Your task to perform on an android device: Go to settings Image 0: 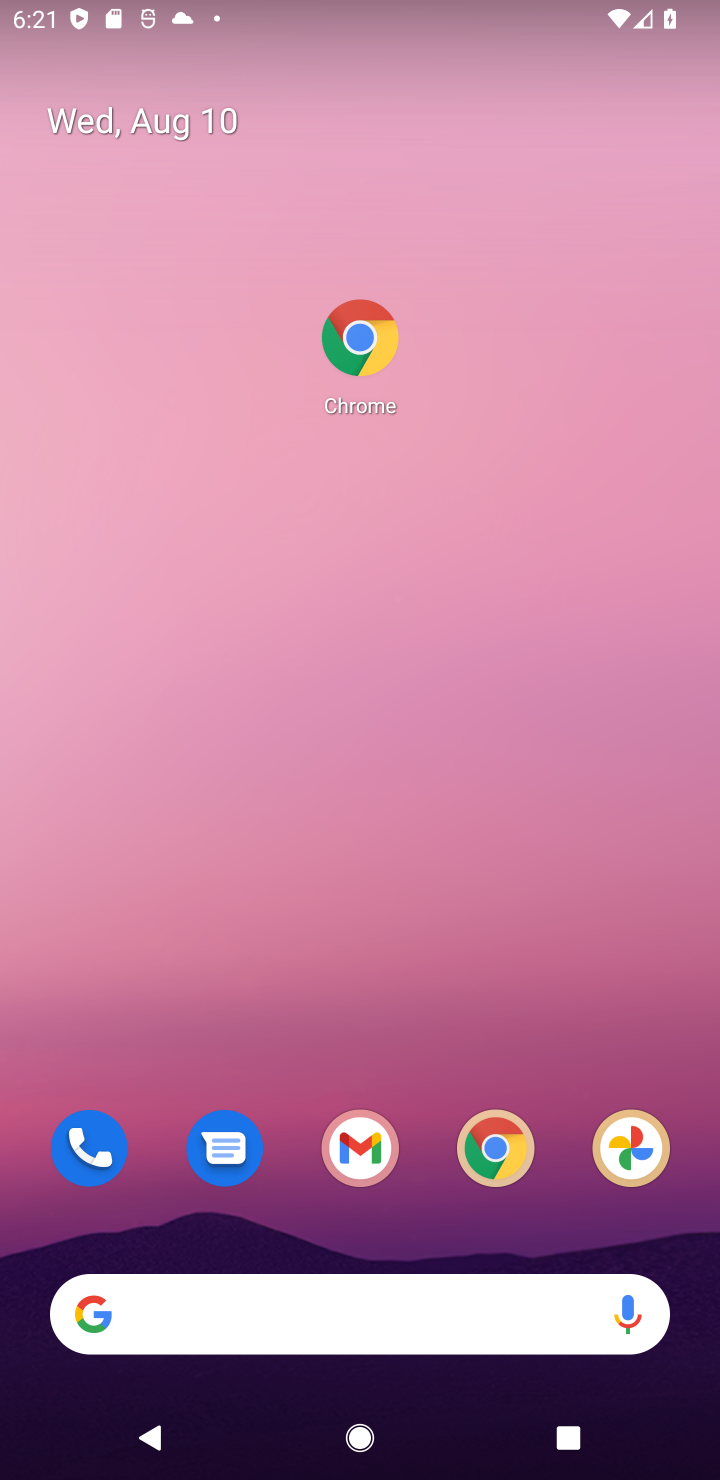
Step 0: click (335, 1210)
Your task to perform on an android device: Go to settings Image 1: 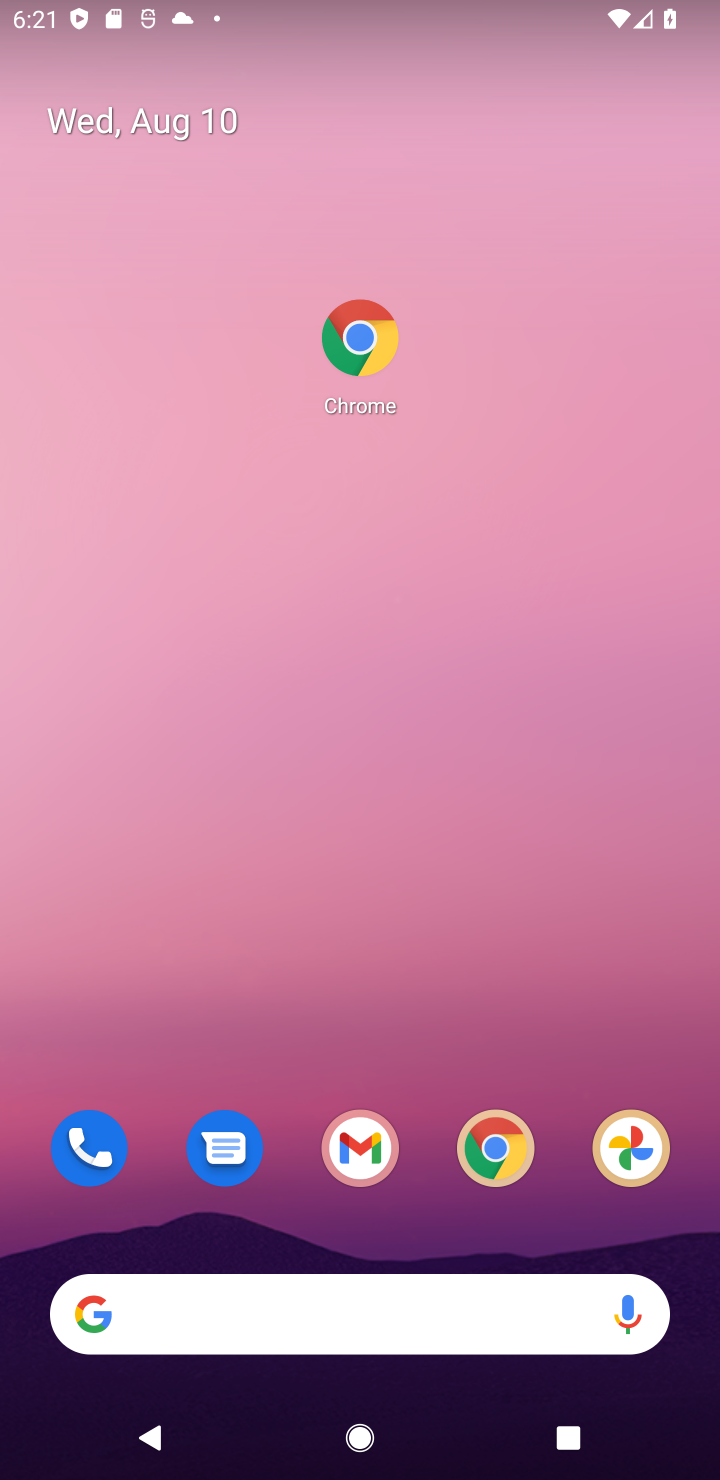
Step 1: drag from (335, 1210) to (348, 173)
Your task to perform on an android device: Go to settings Image 2: 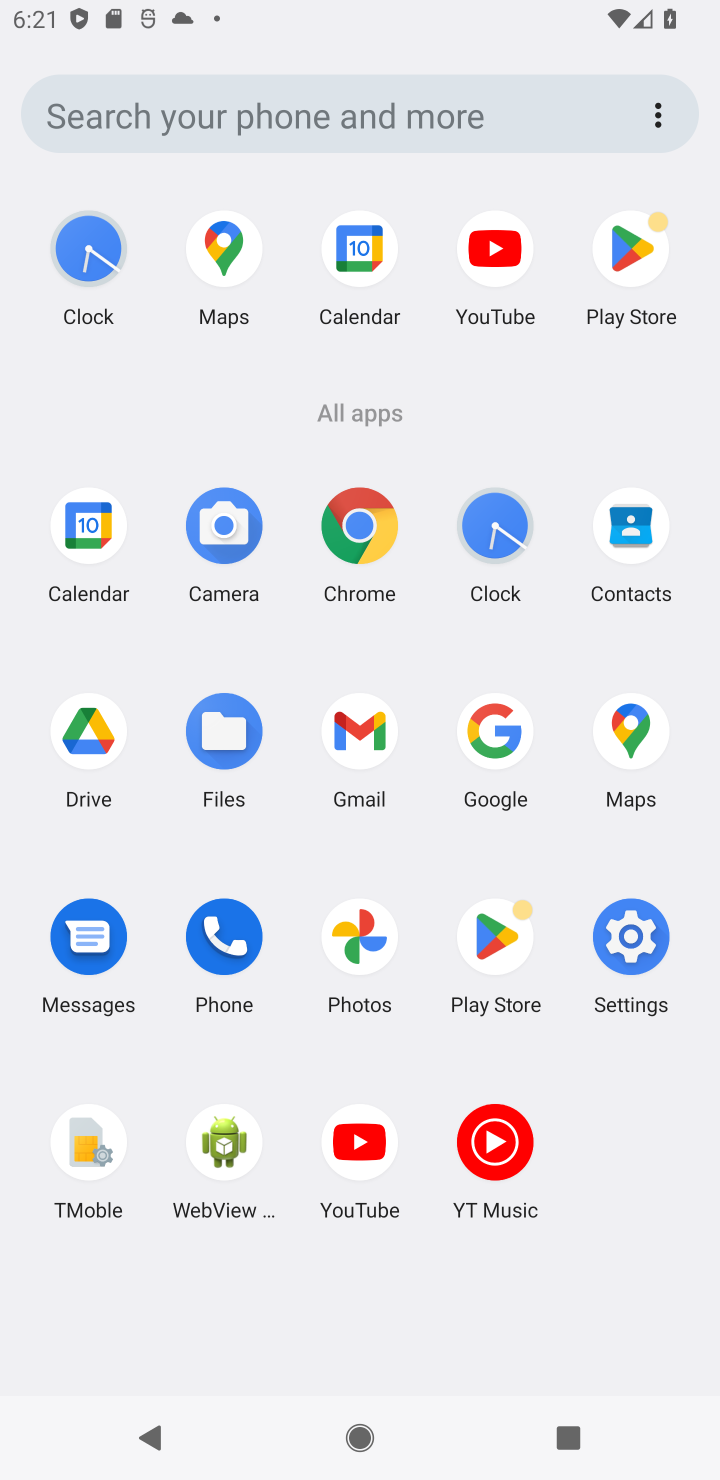
Step 2: click (630, 939)
Your task to perform on an android device: Go to settings Image 3: 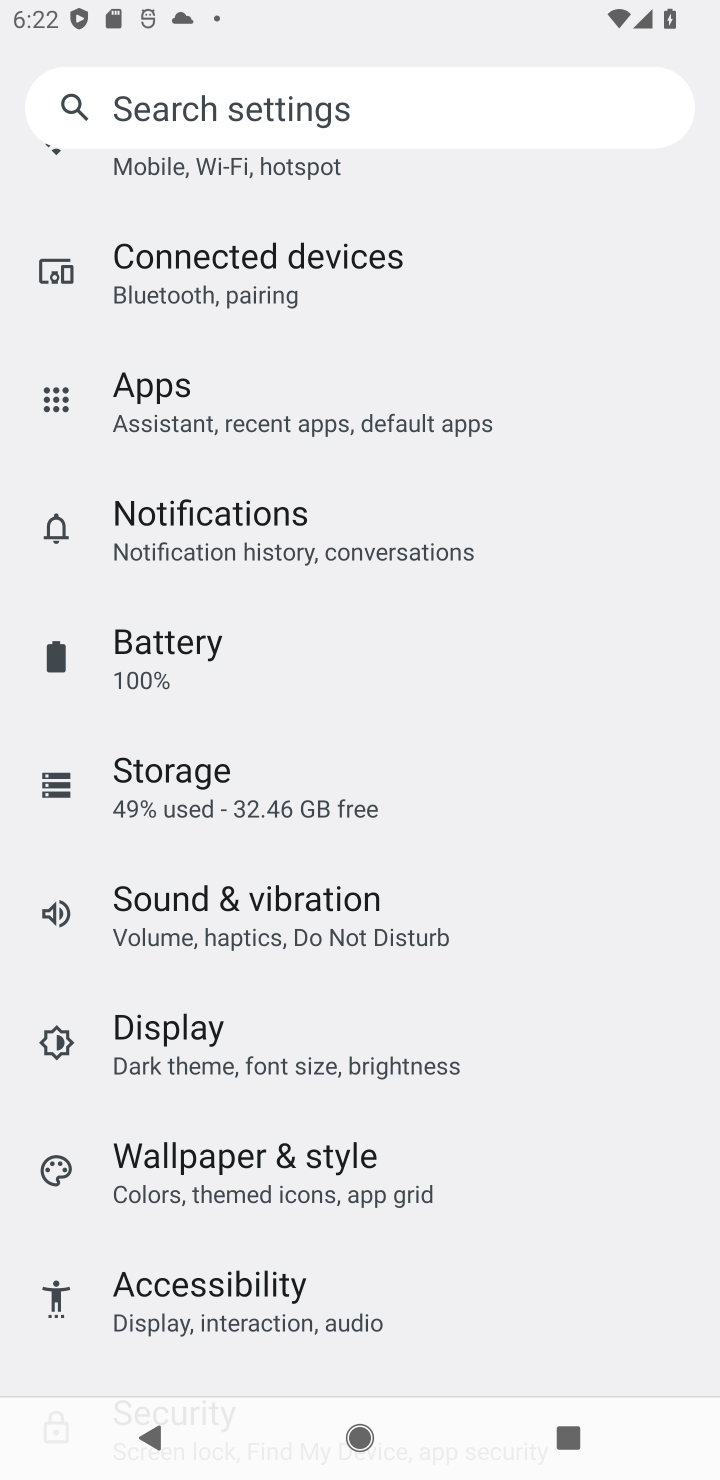
Step 3: task complete